Your task to perform on an android device: turn on the 12-hour format for clock Image 0: 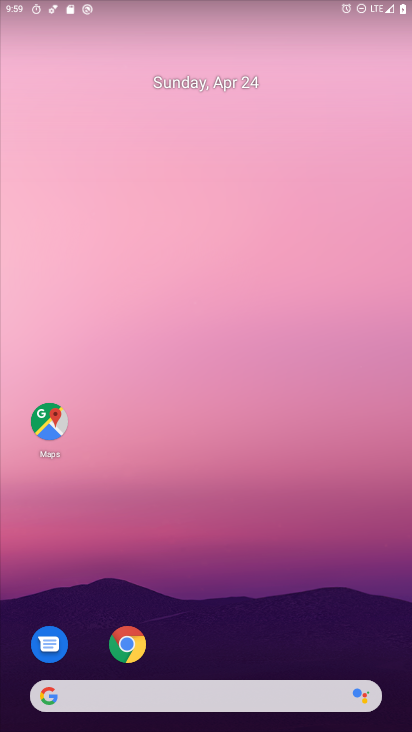
Step 0: drag from (199, 661) to (207, 44)
Your task to perform on an android device: turn on the 12-hour format for clock Image 1: 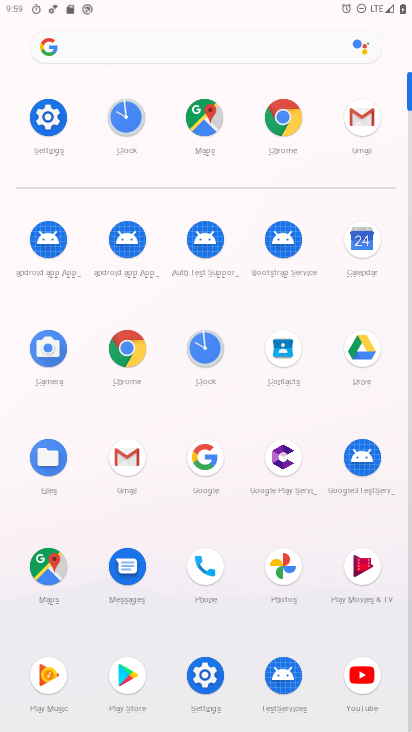
Step 1: click (113, 114)
Your task to perform on an android device: turn on the 12-hour format for clock Image 2: 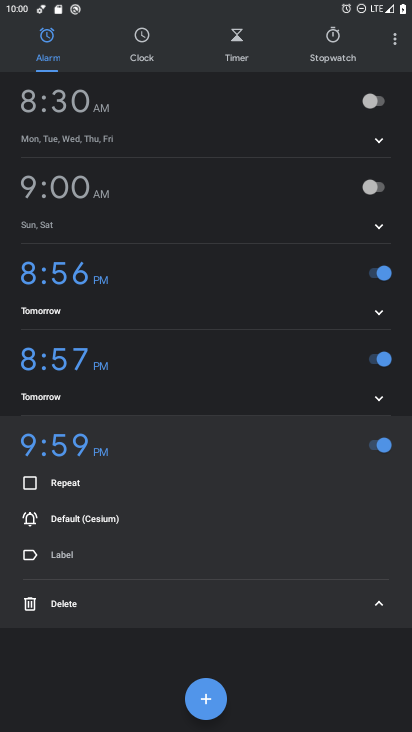
Step 2: click (385, 45)
Your task to perform on an android device: turn on the 12-hour format for clock Image 3: 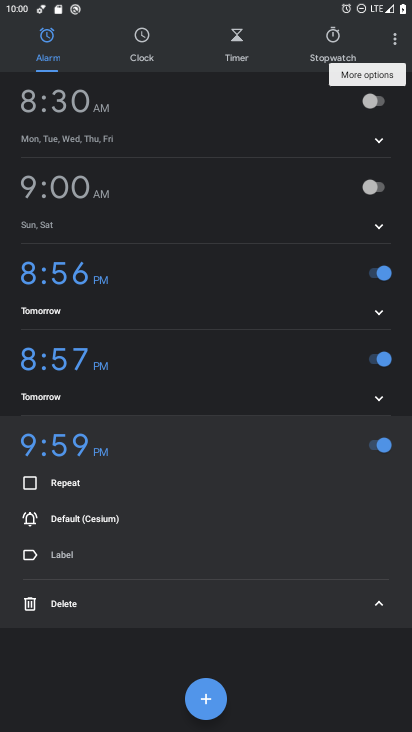
Step 3: click (378, 73)
Your task to perform on an android device: turn on the 12-hour format for clock Image 4: 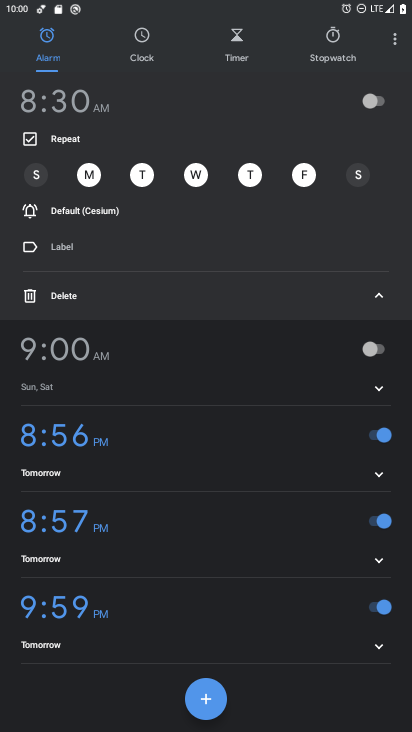
Step 4: click (386, 46)
Your task to perform on an android device: turn on the 12-hour format for clock Image 5: 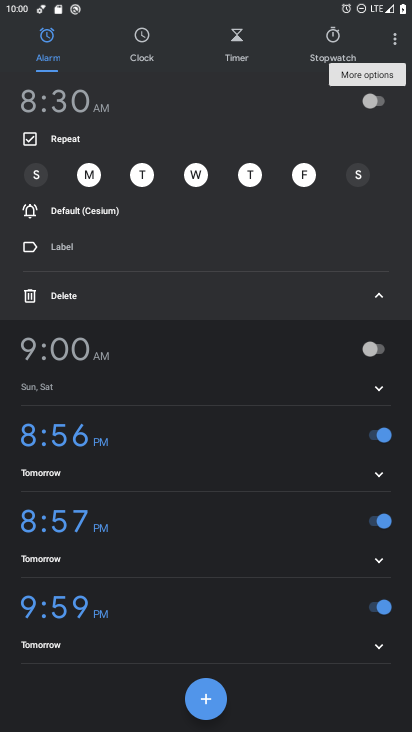
Step 5: click (386, 47)
Your task to perform on an android device: turn on the 12-hour format for clock Image 6: 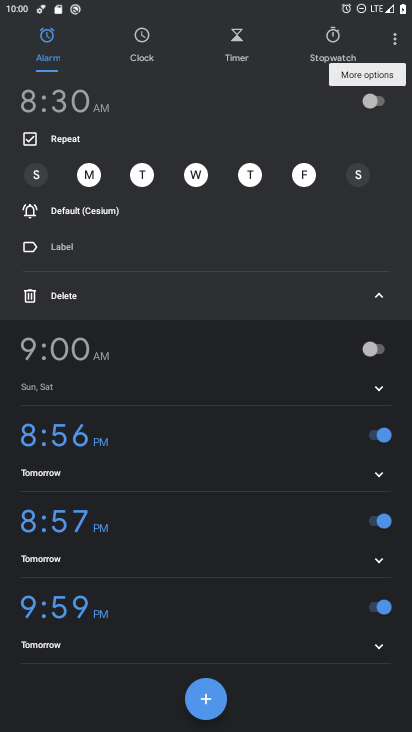
Step 6: click (388, 37)
Your task to perform on an android device: turn on the 12-hour format for clock Image 7: 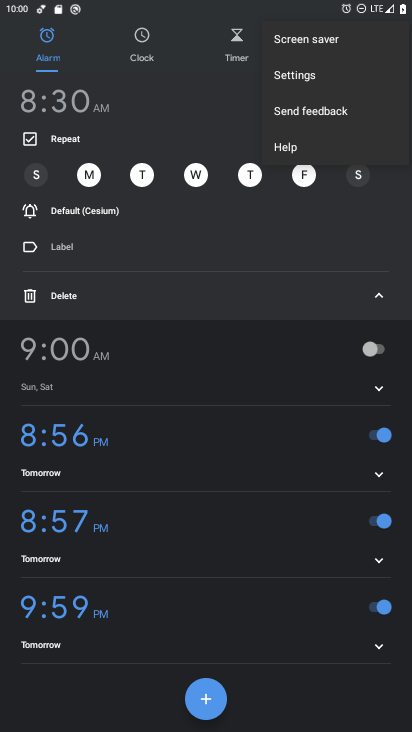
Step 7: click (307, 72)
Your task to perform on an android device: turn on the 12-hour format for clock Image 8: 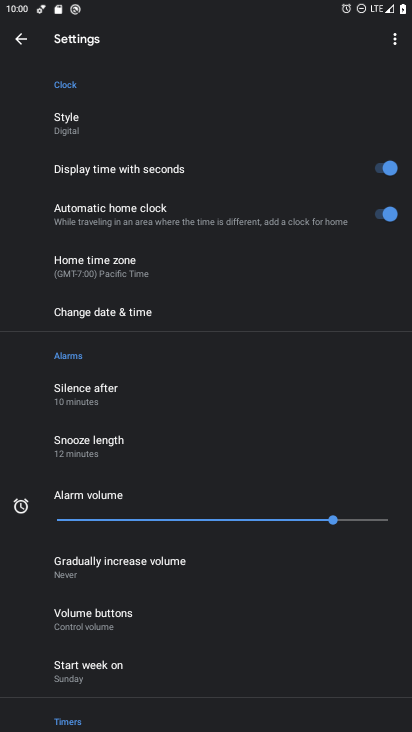
Step 8: click (104, 310)
Your task to perform on an android device: turn on the 12-hour format for clock Image 9: 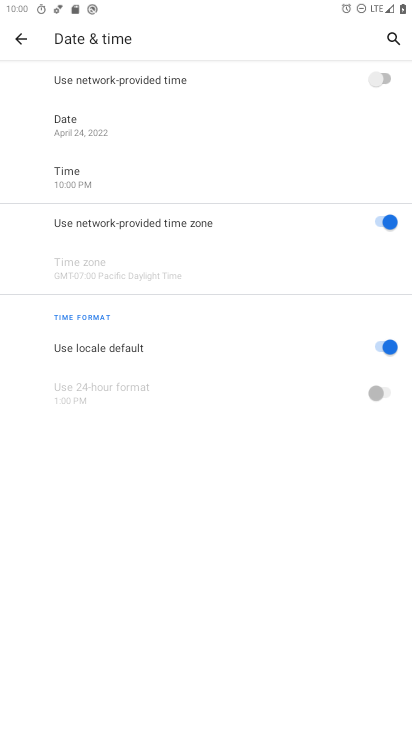
Step 9: task complete